Your task to perform on an android device: open chrome and create a bookmark for the current page Image 0: 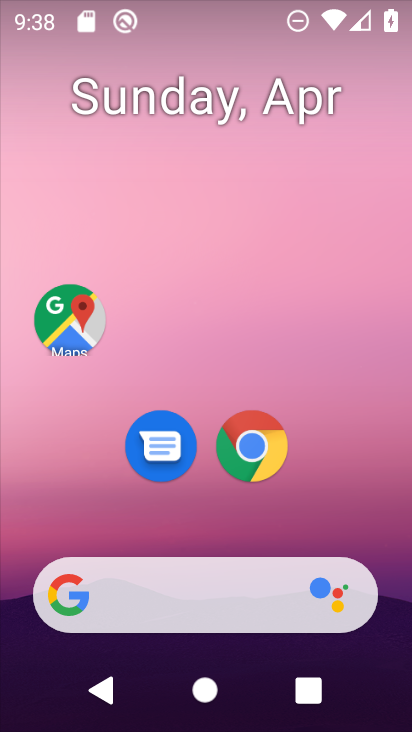
Step 0: drag from (201, 494) to (317, 114)
Your task to perform on an android device: open chrome and create a bookmark for the current page Image 1: 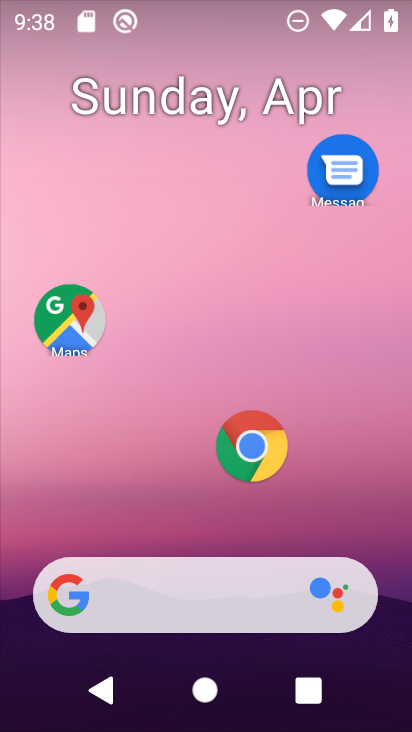
Step 1: click (249, 463)
Your task to perform on an android device: open chrome and create a bookmark for the current page Image 2: 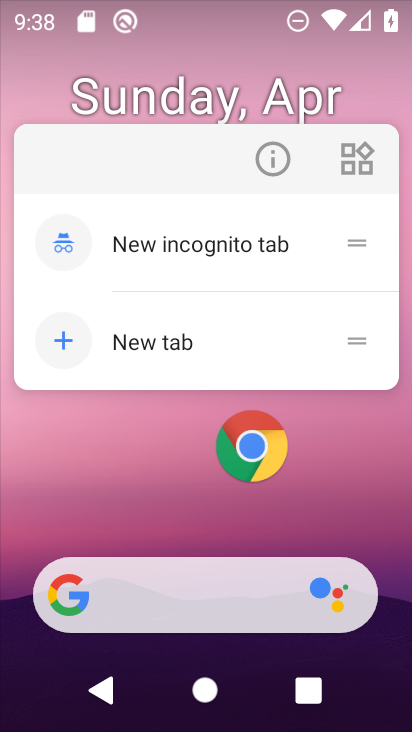
Step 2: click (291, 148)
Your task to perform on an android device: open chrome and create a bookmark for the current page Image 3: 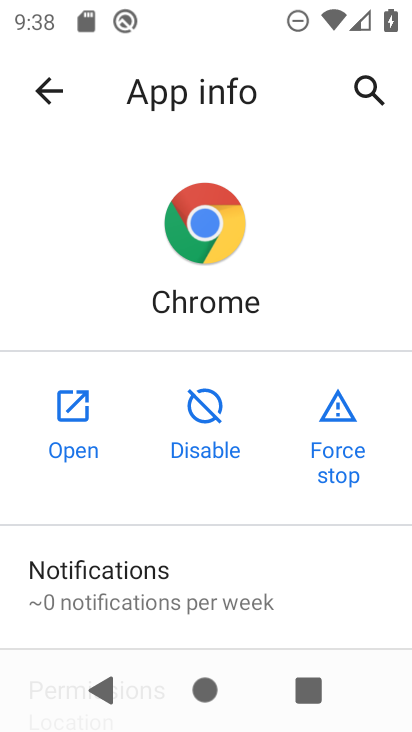
Step 3: click (55, 394)
Your task to perform on an android device: open chrome and create a bookmark for the current page Image 4: 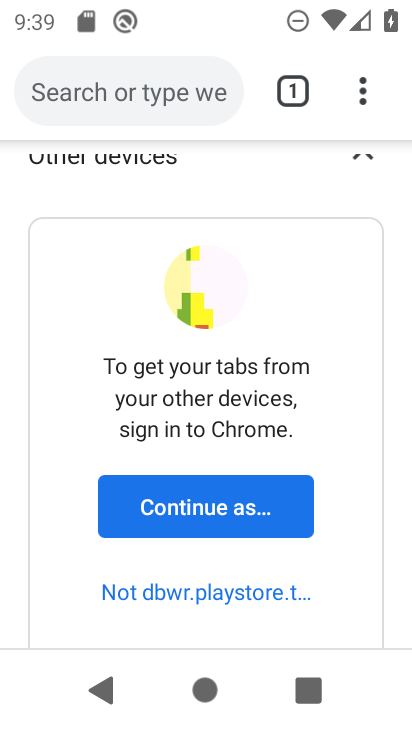
Step 4: click (359, 102)
Your task to perform on an android device: open chrome and create a bookmark for the current page Image 5: 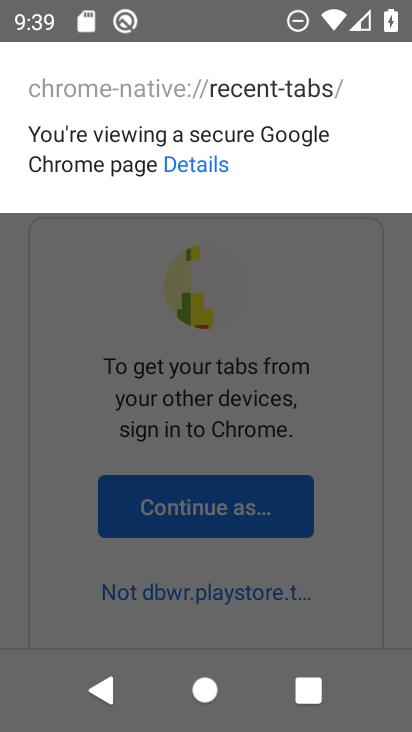
Step 5: click (252, 290)
Your task to perform on an android device: open chrome and create a bookmark for the current page Image 6: 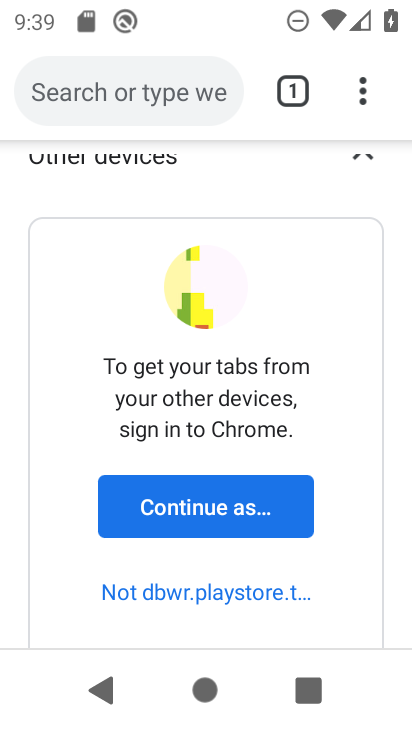
Step 6: task complete